Your task to perform on an android device: Open privacy settings Image 0: 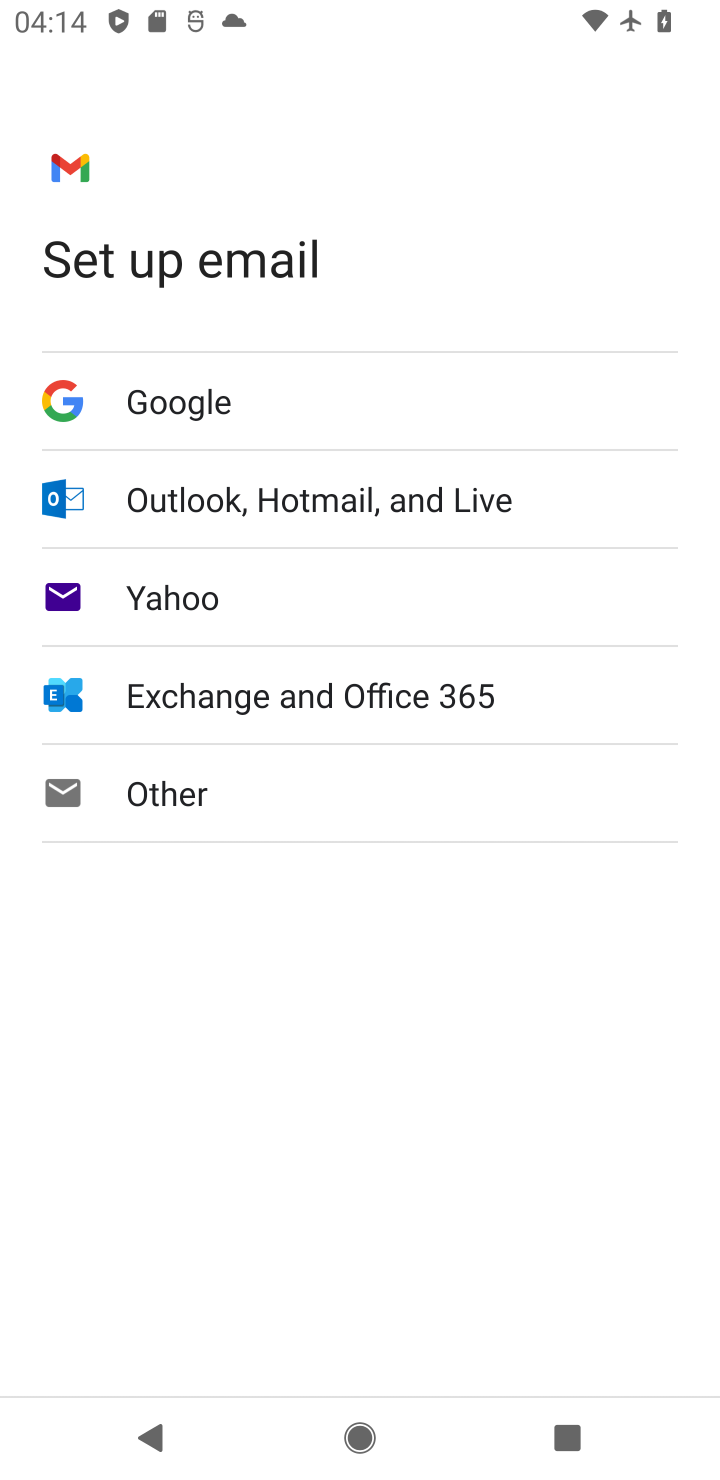
Step 0: press home button
Your task to perform on an android device: Open privacy settings Image 1: 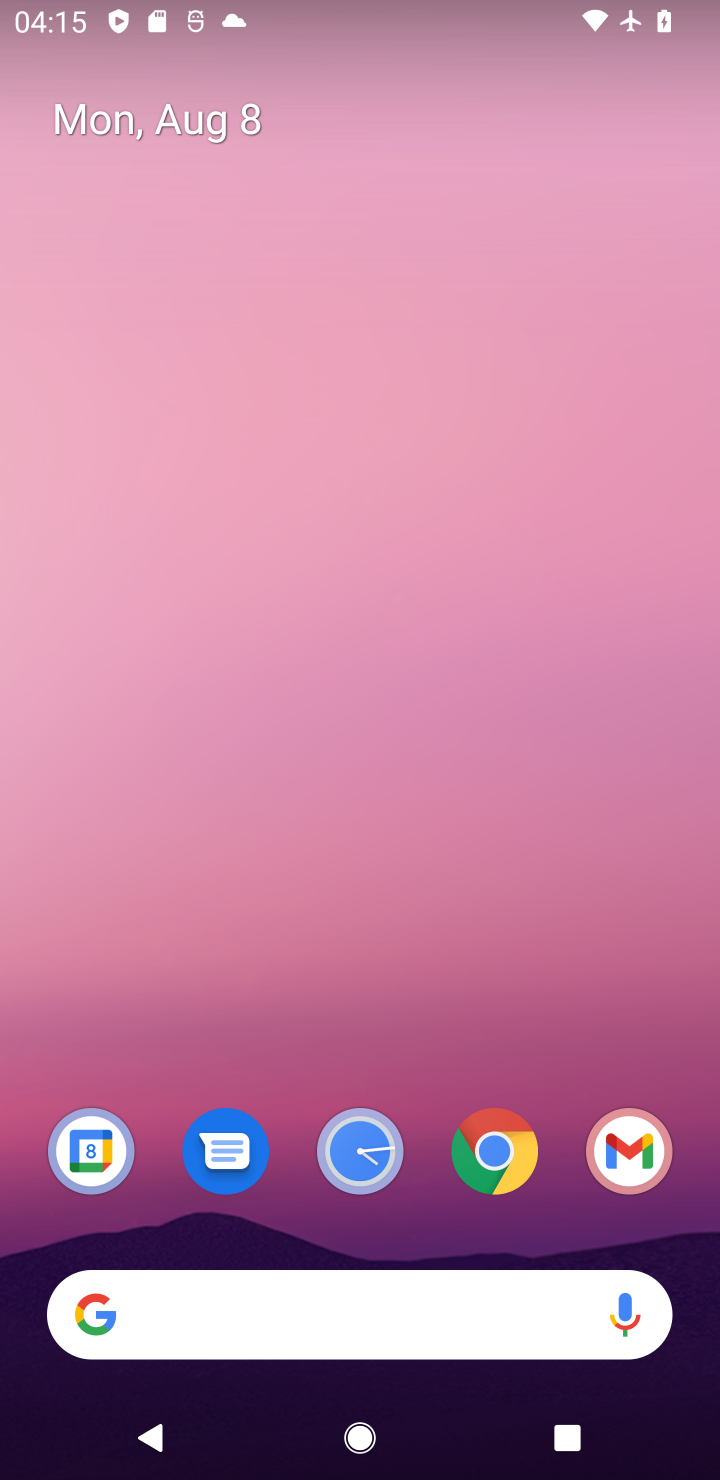
Step 1: drag from (337, 819) to (322, 304)
Your task to perform on an android device: Open privacy settings Image 2: 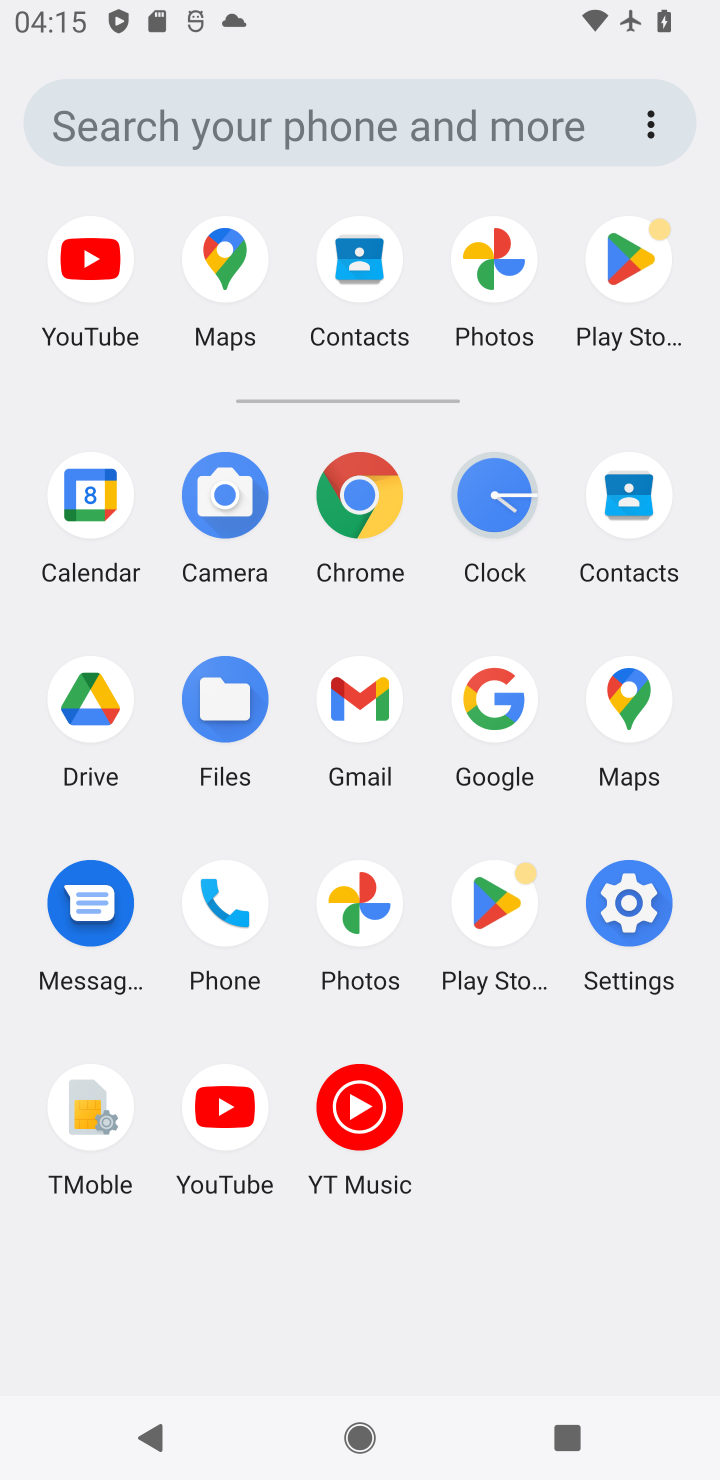
Step 2: click (644, 911)
Your task to perform on an android device: Open privacy settings Image 3: 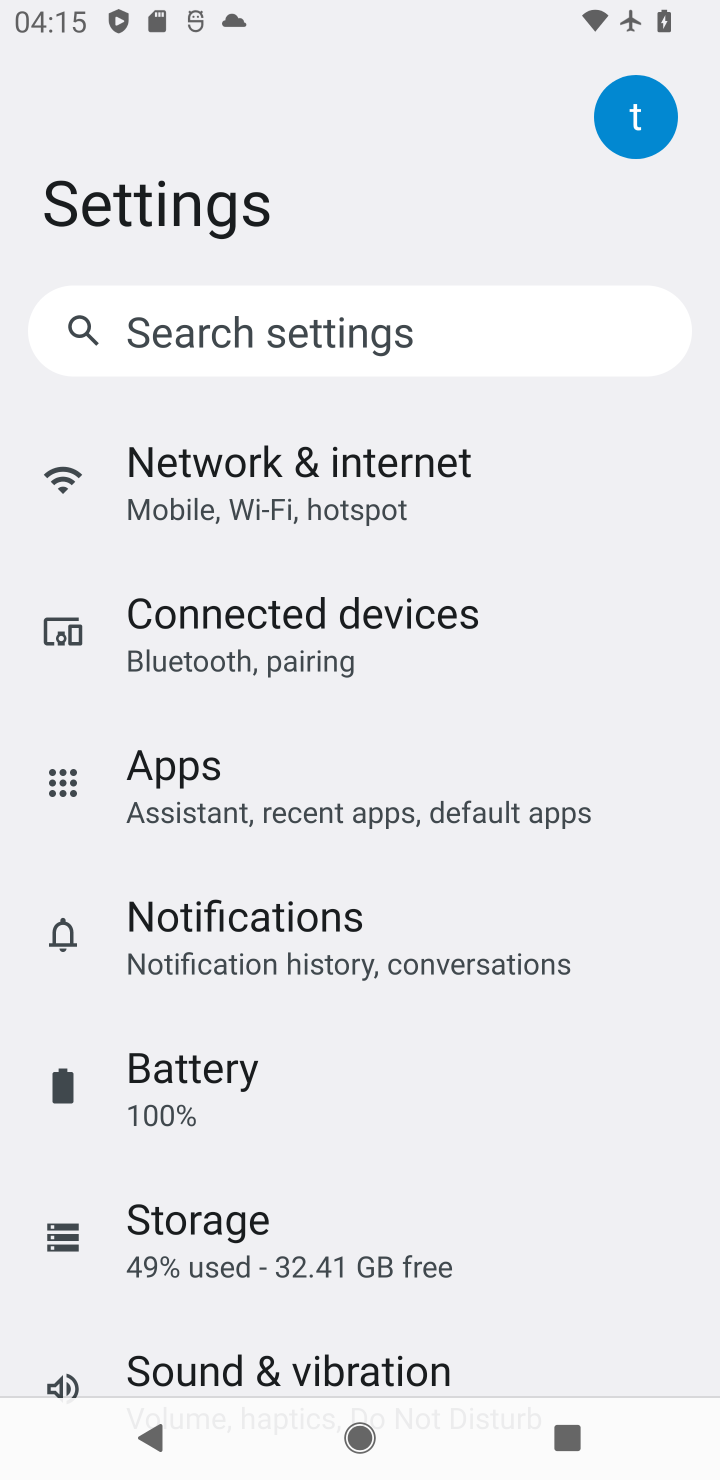
Step 3: drag from (329, 1207) to (334, 637)
Your task to perform on an android device: Open privacy settings Image 4: 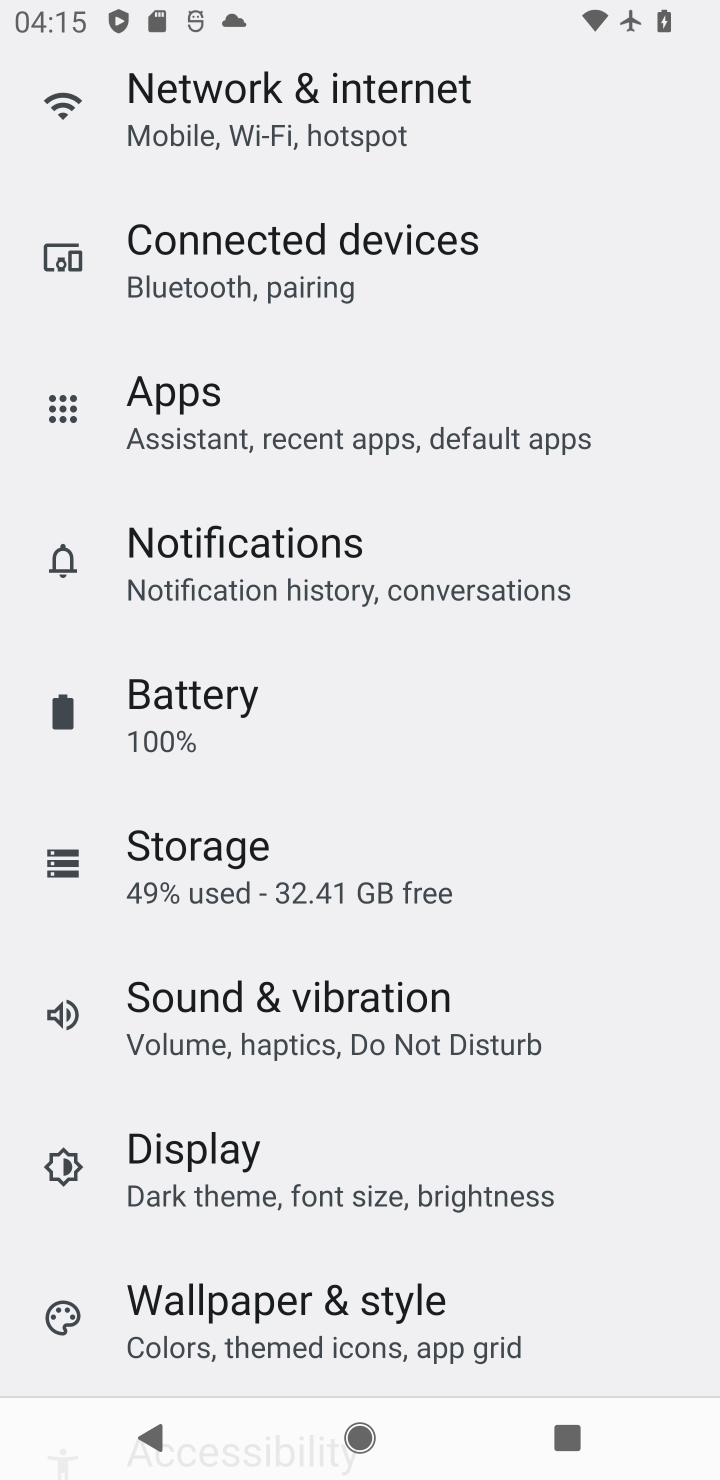
Step 4: drag from (340, 1159) to (360, 684)
Your task to perform on an android device: Open privacy settings Image 5: 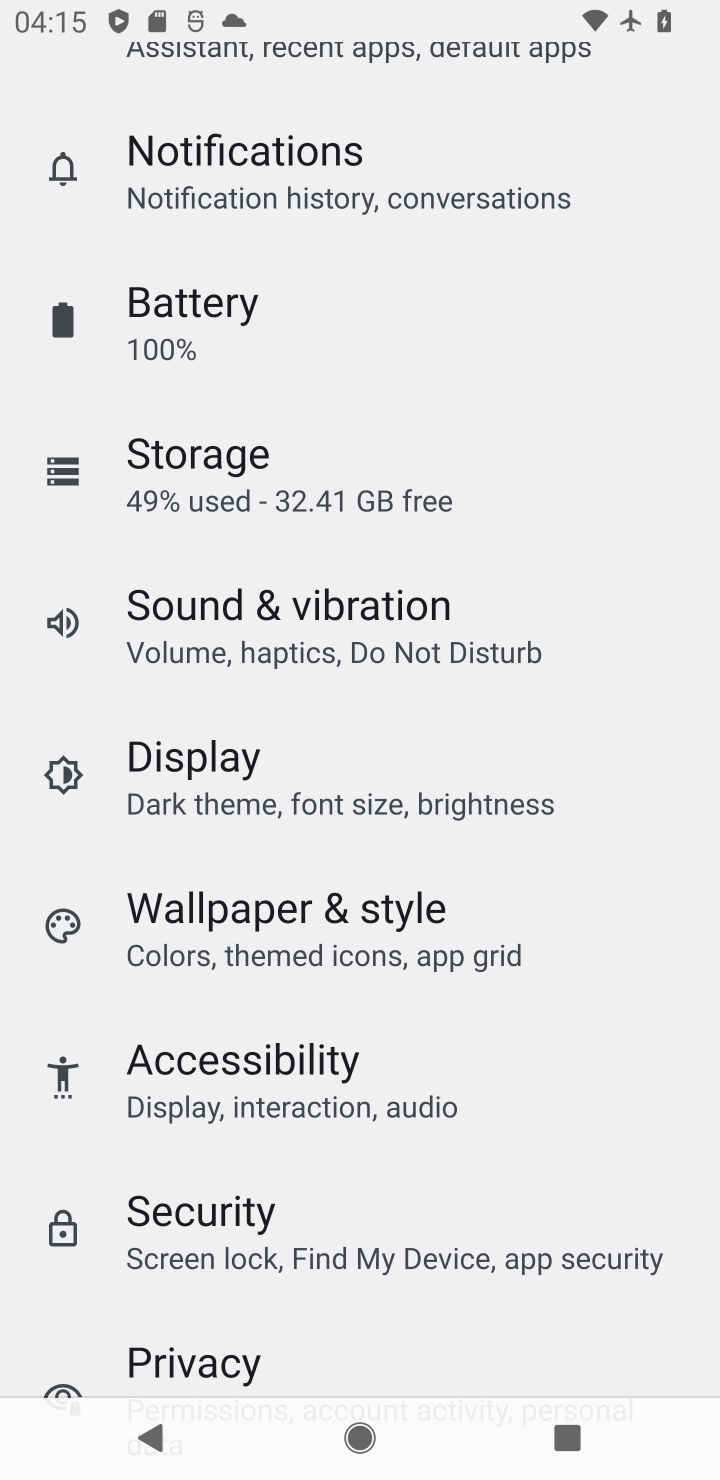
Step 5: drag from (366, 1063) to (368, 701)
Your task to perform on an android device: Open privacy settings Image 6: 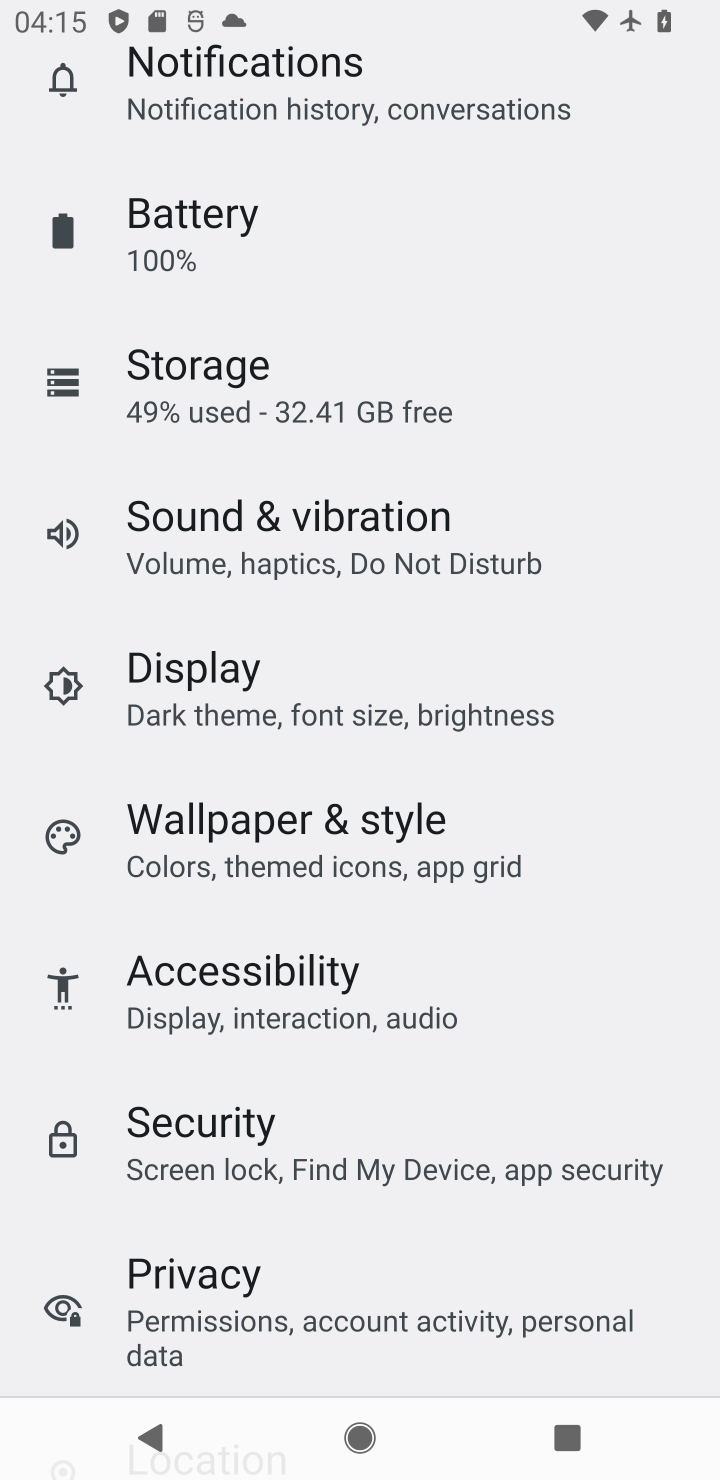
Step 6: click (248, 1272)
Your task to perform on an android device: Open privacy settings Image 7: 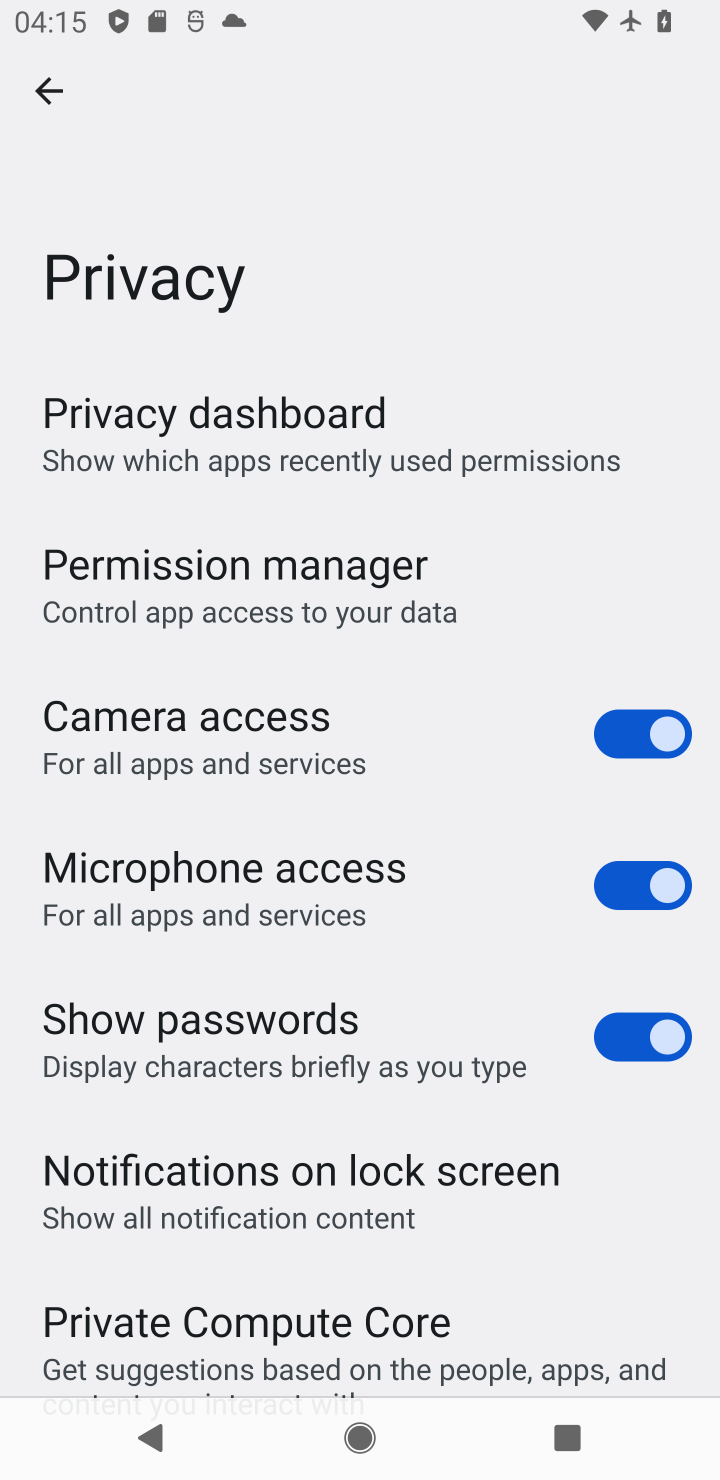
Step 7: task complete